Your task to perform on an android device: turn off notifications settings in the gmail app Image 0: 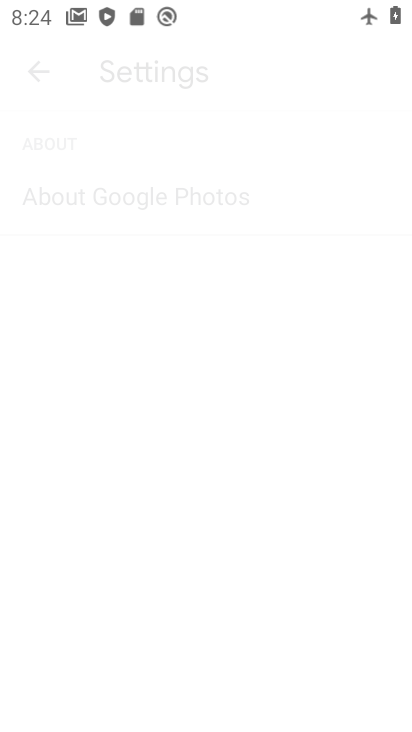
Step 0: drag from (332, 596) to (306, 168)
Your task to perform on an android device: turn off notifications settings in the gmail app Image 1: 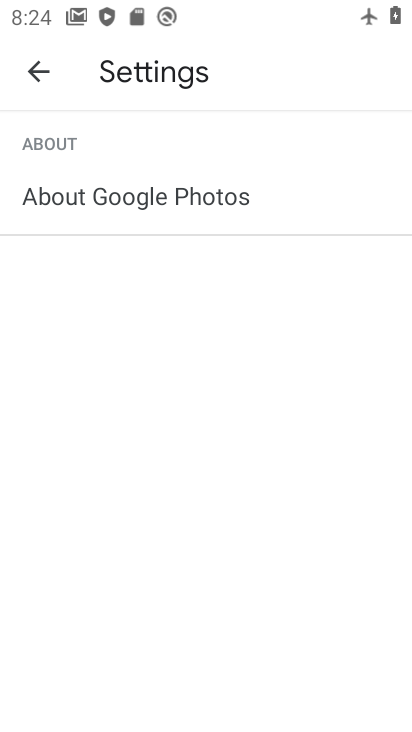
Step 1: press home button
Your task to perform on an android device: turn off notifications settings in the gmail app Image 2: 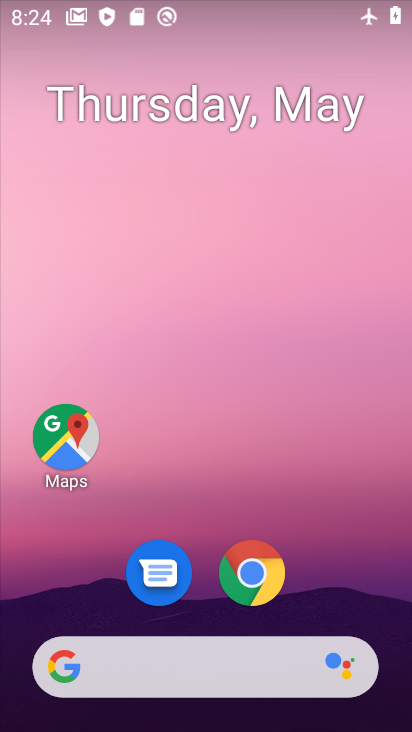
Step 2: drag from (366, 593) to (272, 45)
Your task to perform on an android device: turn off notifications settings in the gmail app Image 3: 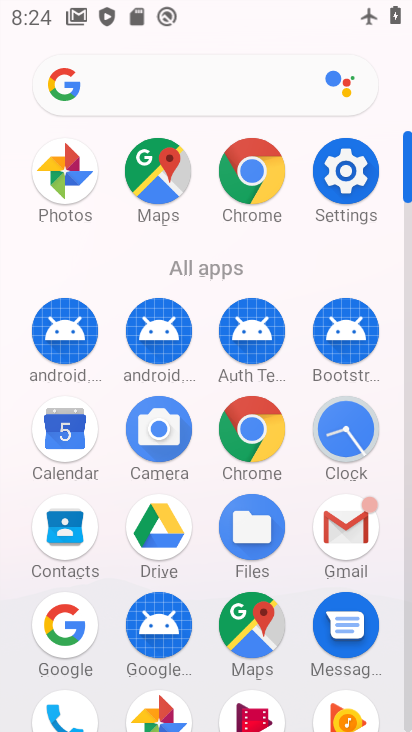
Step 3: click (350, 527)
Your task to perform on an android device: turn off notifications settings in the gmail app Image 4: 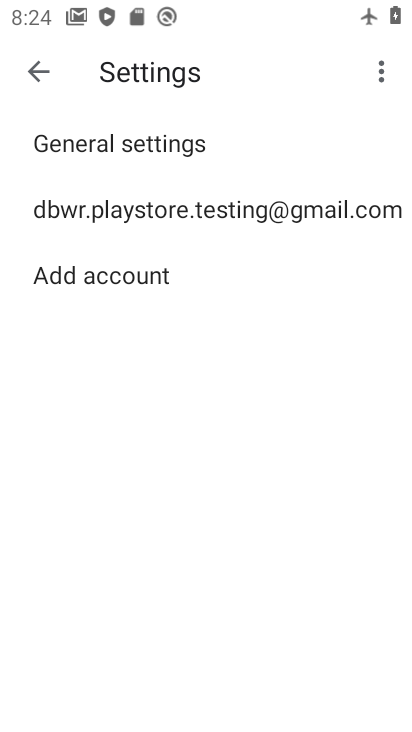
Step 4: click (155, 148)
Your task to perform on an android device: turn off notifications settings in the gmail app Image 5: 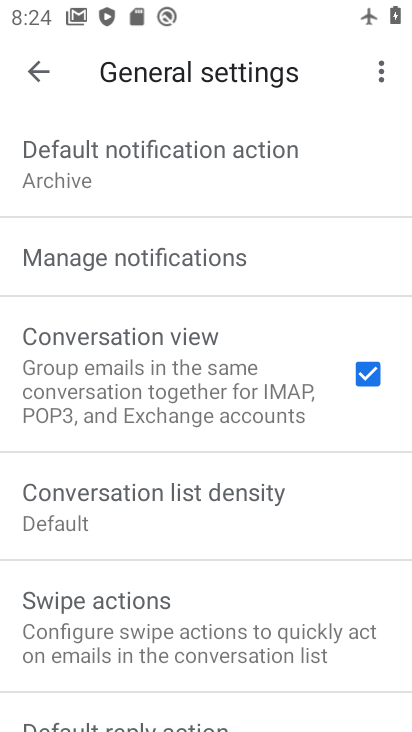
Step 5: click (183, 259)
Your task to perform on an android device: turn off notifications settings in the gmail app Image 6: 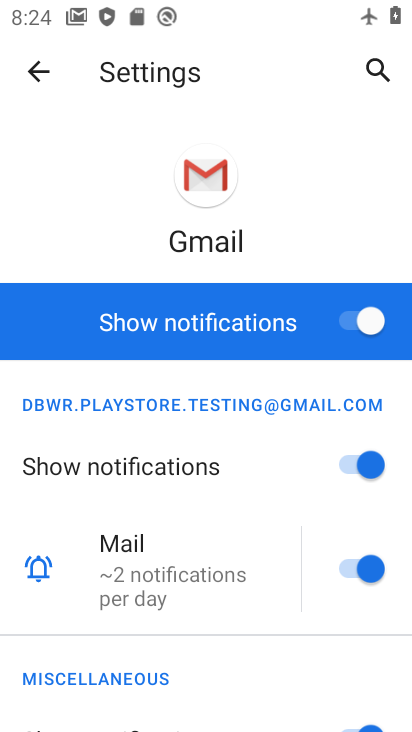
Step 6: click (363, 320)
Your task to perform on an android device: turn off notifications settings in the gmail app Image 7: 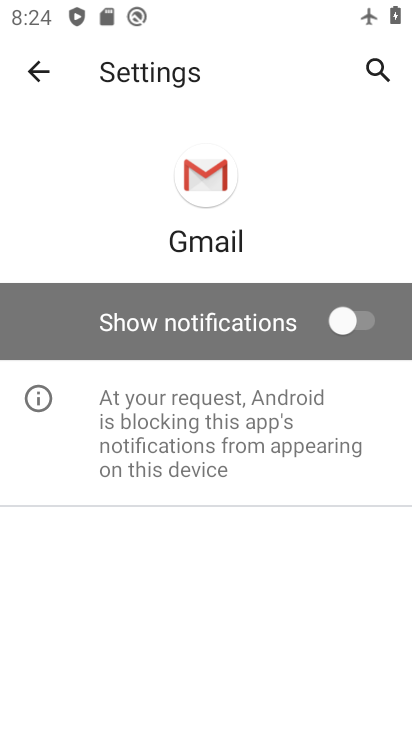
Step 7: task complete